Your task to perform on an android device: Search for seafood restaurants on Google Maps Image 0: 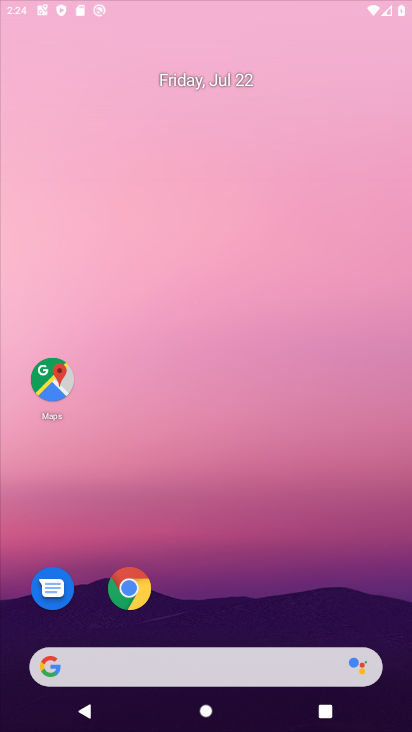
Step 0: press home button
Your task to perform on an android device: Search for seafood restaurants on Google Maps Image 1: 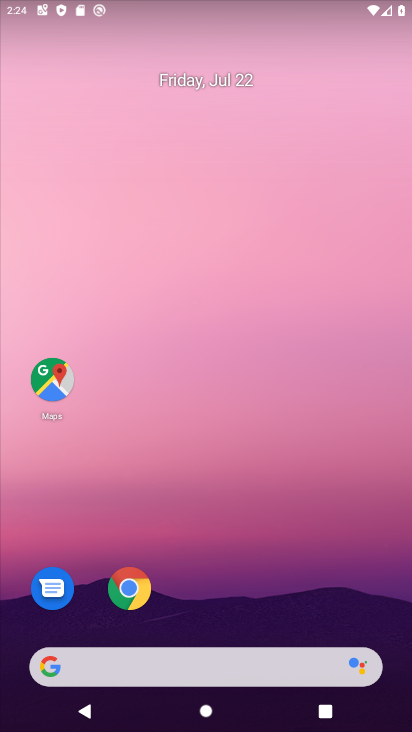
Step 1: click (49, 372)
Your task to perform on an android device: Search for seafood restaurants on Google Maps Image 2: 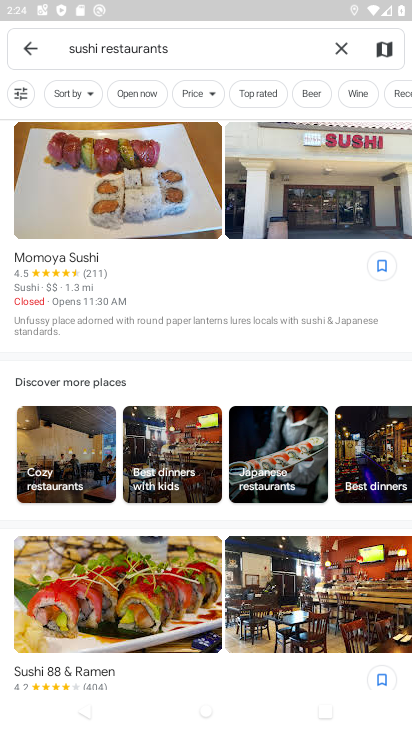
Step 2: click (346, 48)
Your task to perform on an android device: Search for seafood restaurants on Google Maps Image 3: 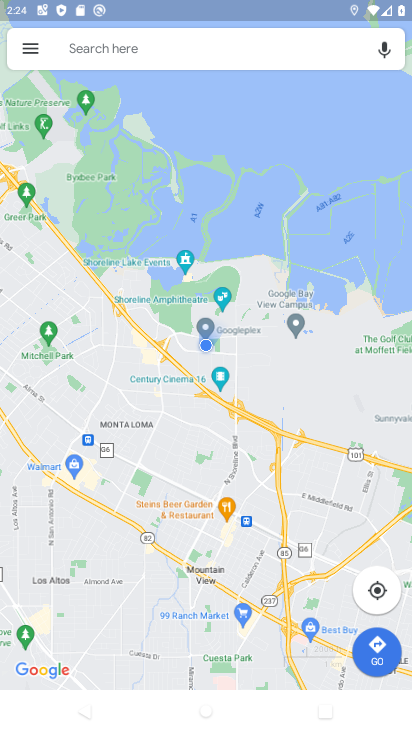
Step 3: click (111, 46)
Your task to perform on an android device: Search for seafood restaurants on Google Maps Image 4: 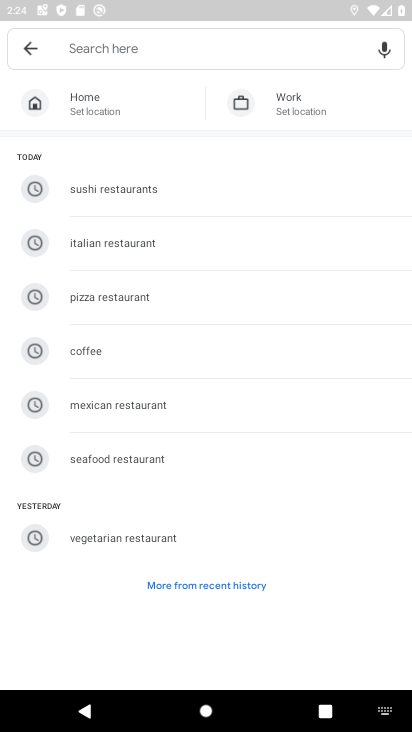
Step 4: click (104, 461)
Your task to perform on an android device: Search for seafood restaurants on Google Maps Image 5: 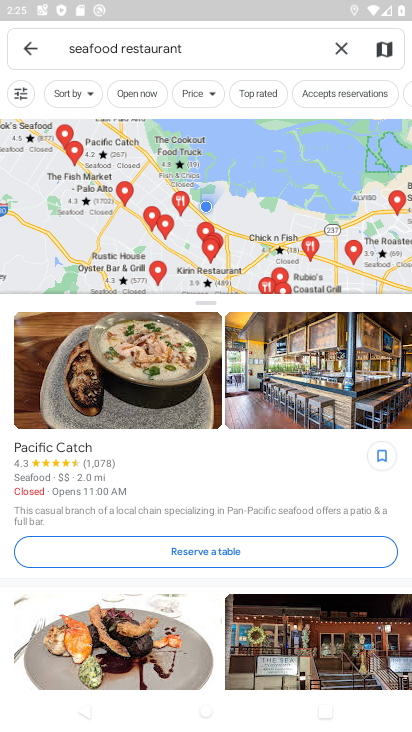
Step 5: task complete